Your task to perform on an android device: What is the recent news? Image 0: 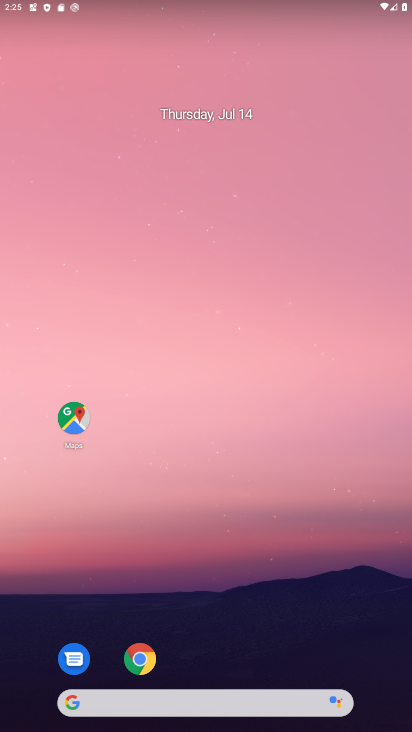
Step 0: press home button
Your task to perform on an android device: What is the recent news? Image 1: 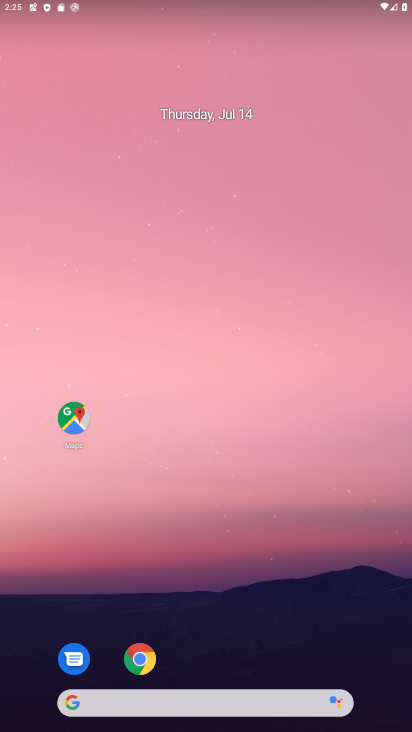
Step 1: click (68, 702)
Your task to perform on an android device: What is the recent news? Image 2: 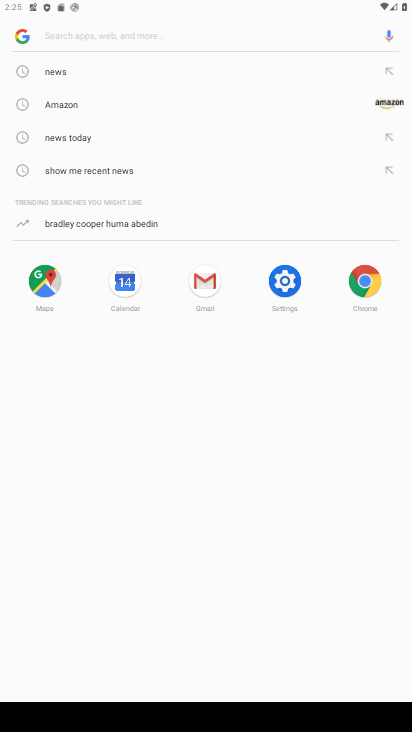
Step 2: type "recent news?"
Your task to perform on an android device: What is the recent news? Image 3: 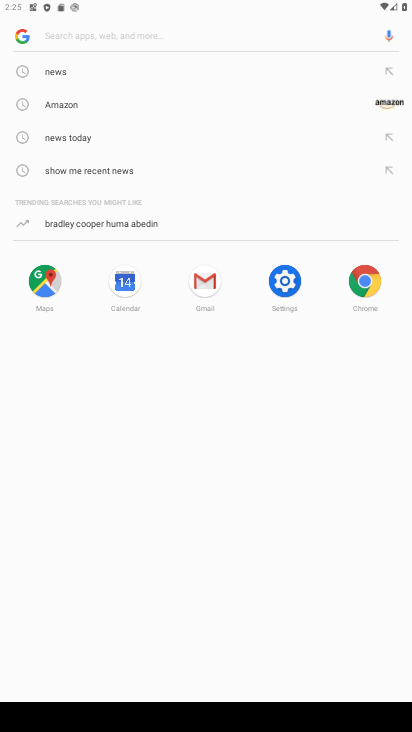
Step 3: click (191, 36)
Your task to perform on an android device: What is the recent news? Image 4: 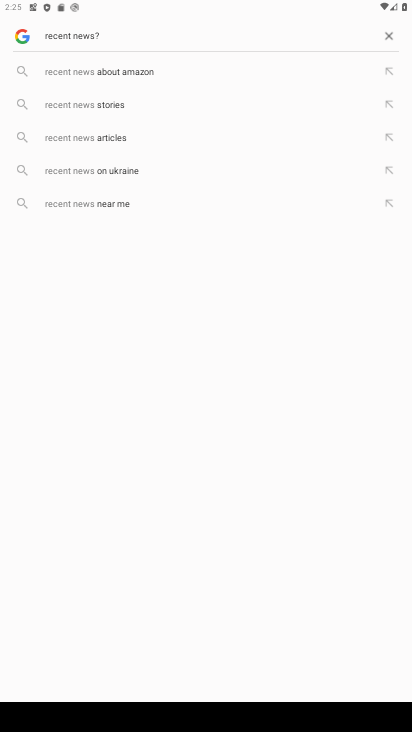
Step 4: click (153, 33)
Your task to perform on an android device: What is the recent news? Image 5: 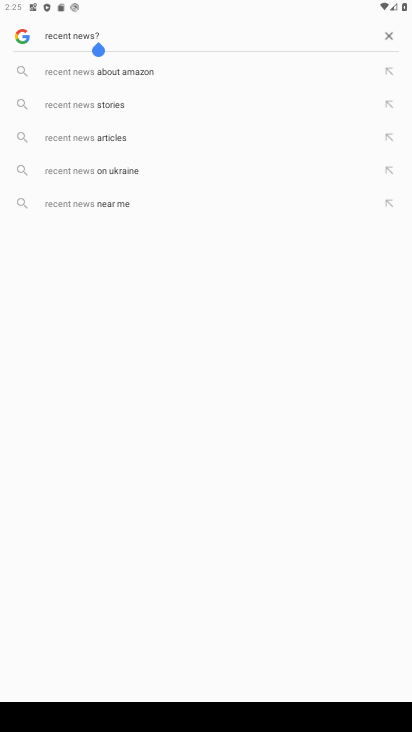
Step 5: press enter
Your task to perform on an android device: What is the recent news? Image 6: 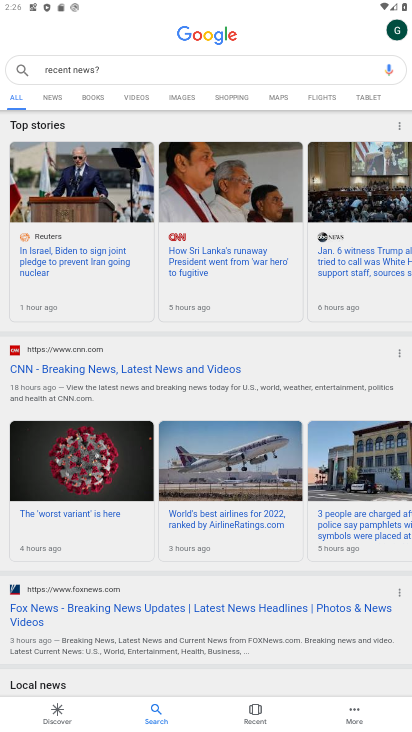
Step 6: task complete